Your task to perform on an android device: open device folders in google photos Image 0: 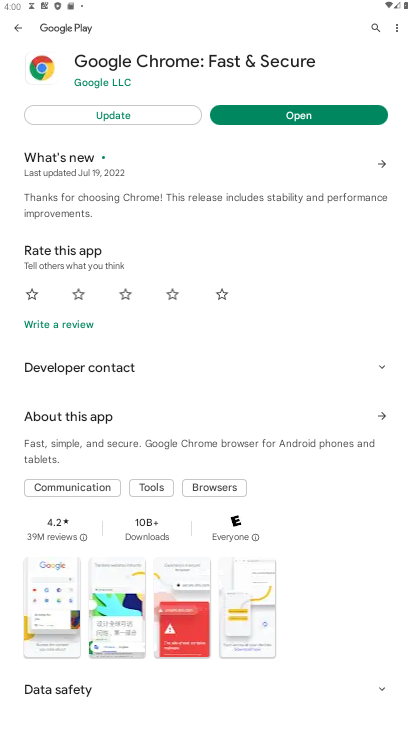
Step 0: press home button
Your task to perform on an android device: open device folders in google photos Image 1: 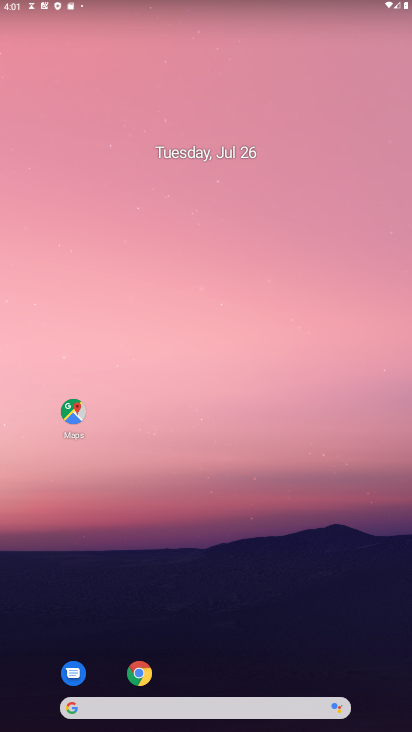
Step 1: drag from (174, 707) to (223, 69)
Your task to perform on an android device: open device folders in google photos Image 2: 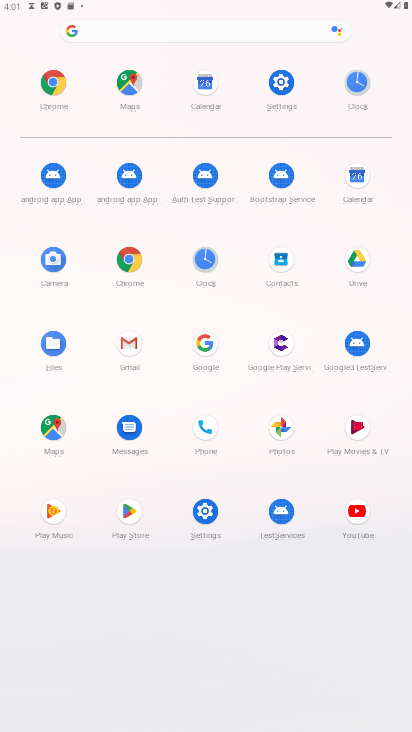
Step 2: click (282, 426)
Your task to perform on an android device: open device folders in google photos Image 3: 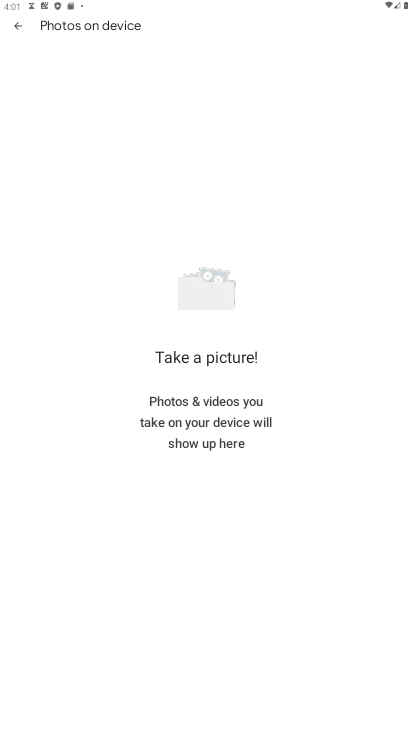
Step 3: task complete